Your task to perform on an android device: change timer sound Image 0: 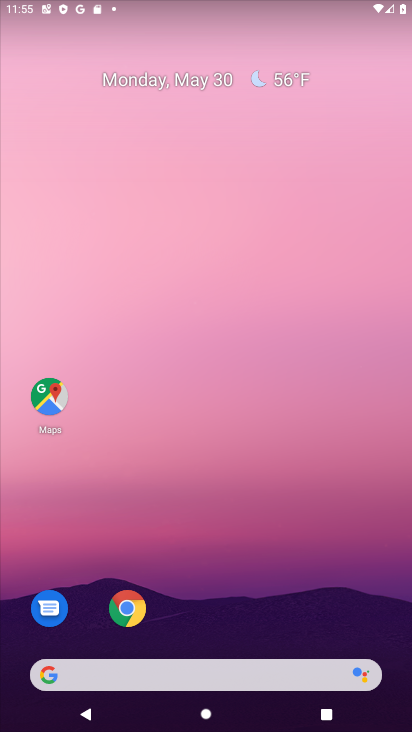
Step 0: drag from (239, 596) to (266, 121)
Your task to perform on an android device: change timer sound Image 1: 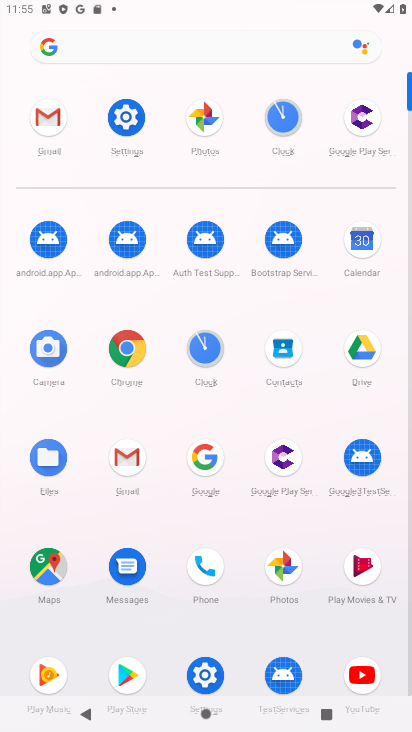
Step 1: click (198, 351)
Your task to perform on an android device: change timer sound Image 2: 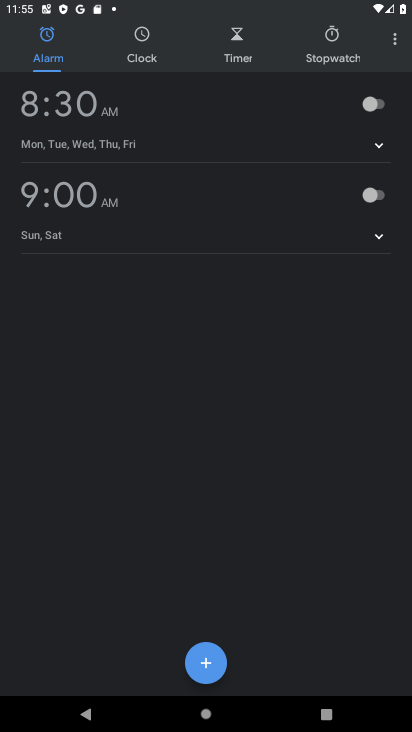
Step 2: click (385, 40)
Your task to perform on an android device: change timer sound Image 3: 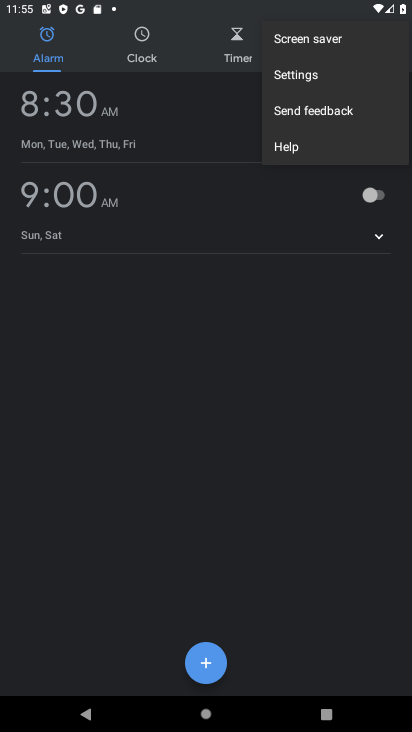
Step 3: click (293, 75)
Your task to perform on an android device: change timer sound Image 4: 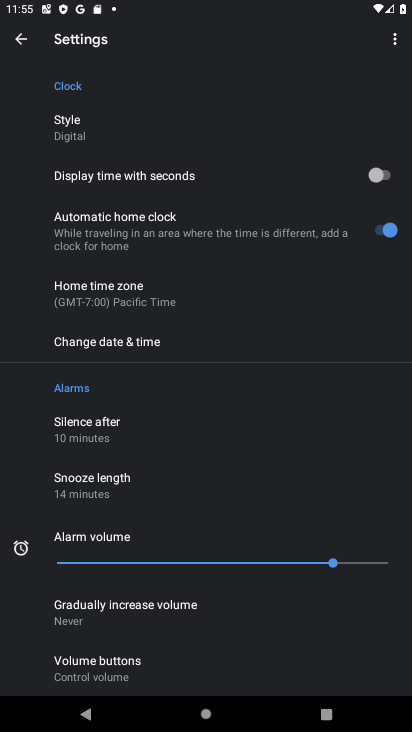
Step 4: drag from (129, 663) to (229, 130)
Your task to perform on an android device: change timer sound Image 5: 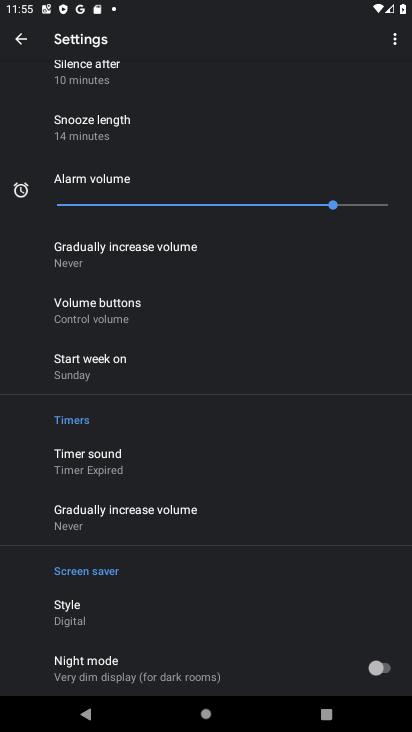
Step 5: click (90, 446)
Your task to perform on an android device: change timer sound Image 6: 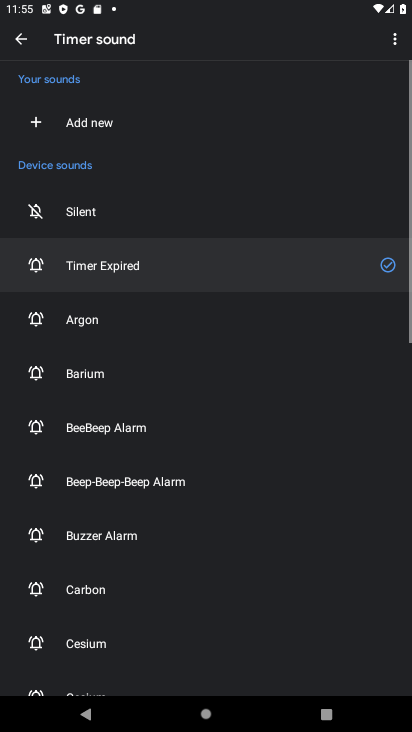
Step 6: click (115, 376)
Your task to perform on an android device: change timer sound Image 7: 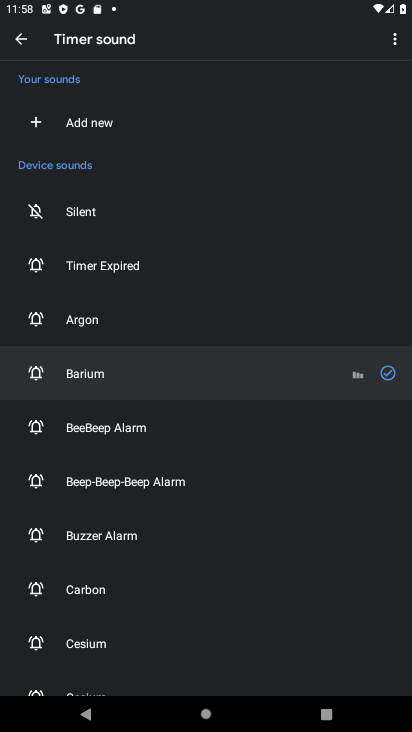
Step 7: task complete